Your task to perform on an android device: Go to notification settings Image 0: 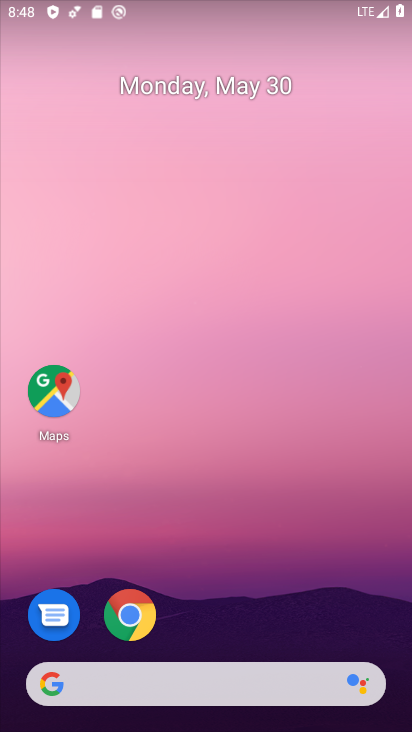
Step 0: drag from (141, 727) to (326, 102)
Your task to perform on an android device: Go to notification settings Image 1: 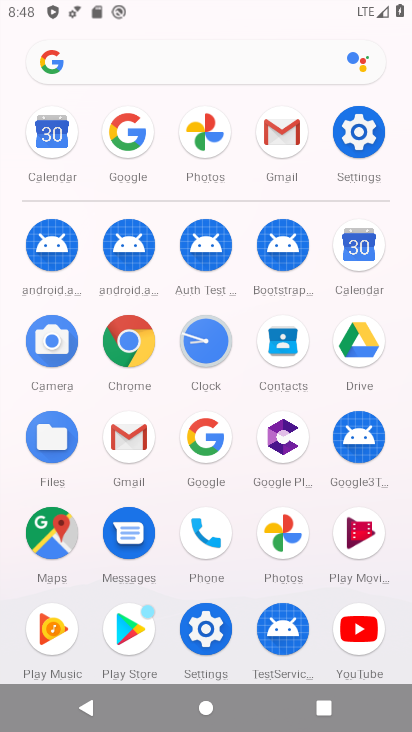
Step 1: click (372, 129)
Your task to perform on an android device: Go to notification settings Image 2: 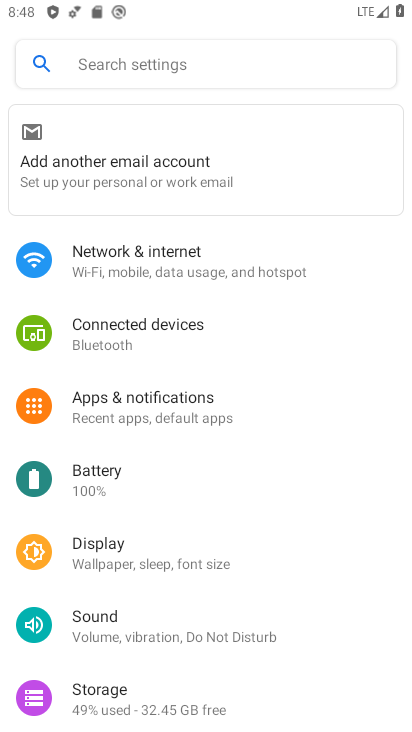
Step 2: click (123, 394)
Your task to perform on an android device: Go to notification settings Image 3: 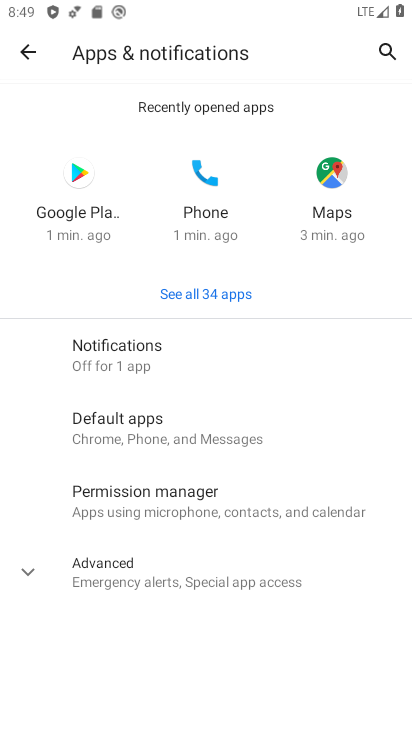
Step 3: task complete